Your task to perform on an android device: Open CNN.com Image 0: 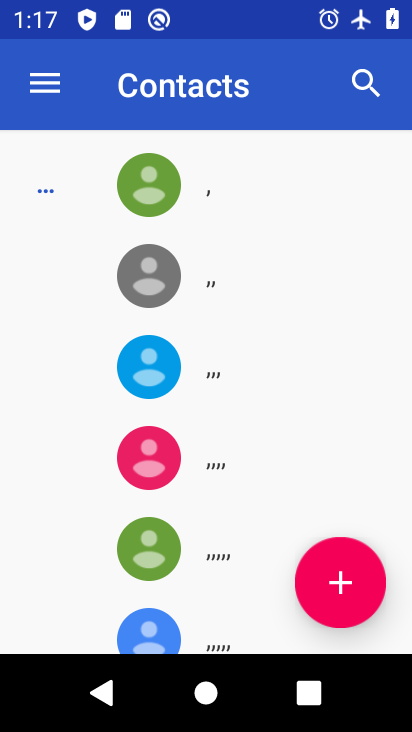
Step 0: press home button
Your task to perform on an android device: Open CNN.com Image 1: 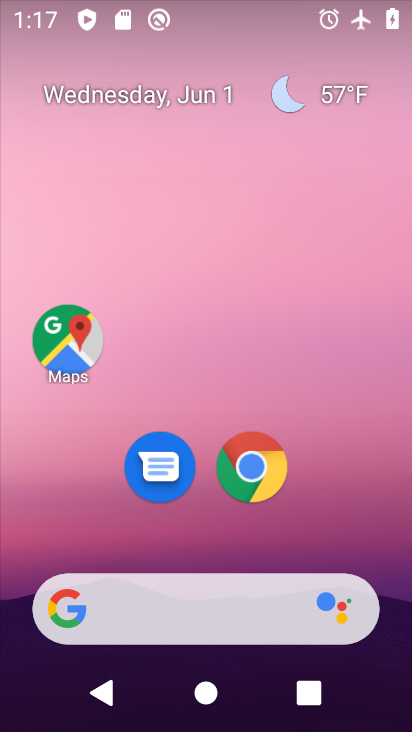
Step 1: drag from (386, 560) to (376, 115)
Your task to perform on an android device: Open CNN.com Image 2: 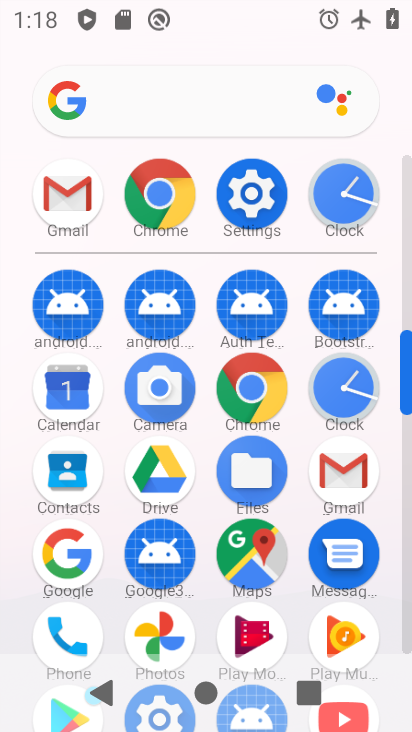
Step 2: click (257, 411)
Your task to perform on an android device: Open CNN.com Image 3: 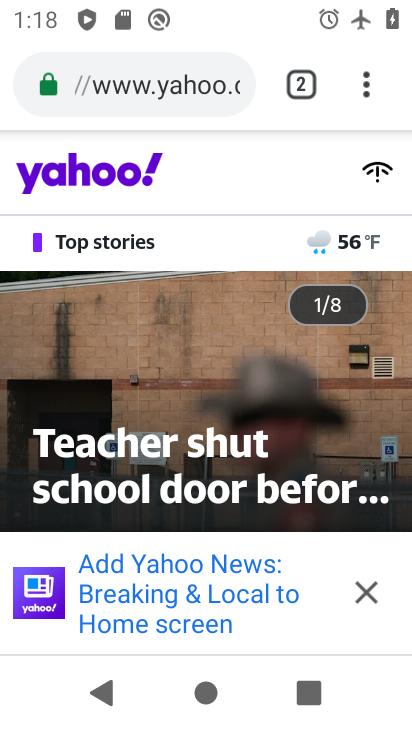
Step 3: click (155, 88)
Your task to perform on an android device: Open CNN.com Image 4: 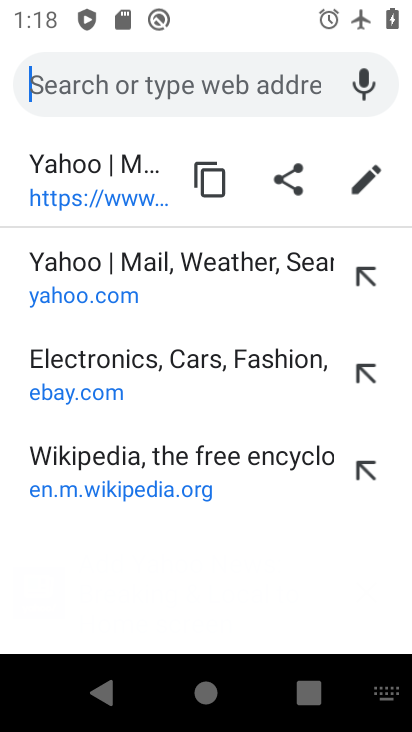
Step 4: click (213, 95)
Your task to perform on an android device: Open CNN.com Image 5: 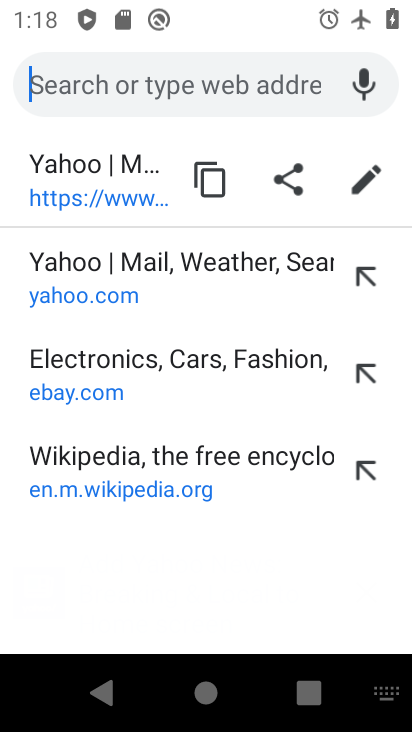
Step 5: type "cnn.com"
Your task to perform on an android device: Open CNN.com Image 6: 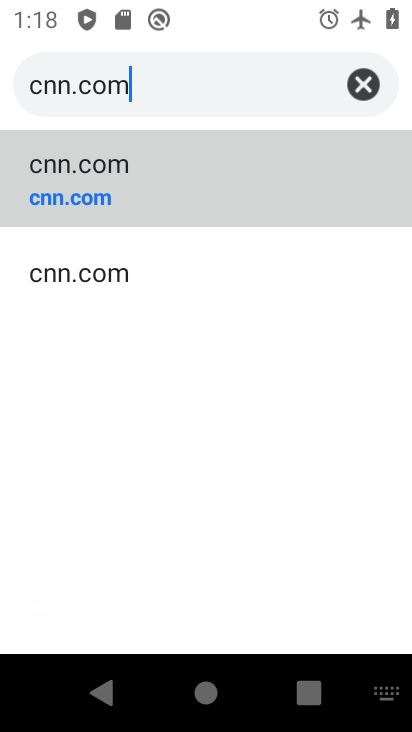
Step 6: click (166, 202)
Your task to perform on an android device: Open CNN.com Image 7: 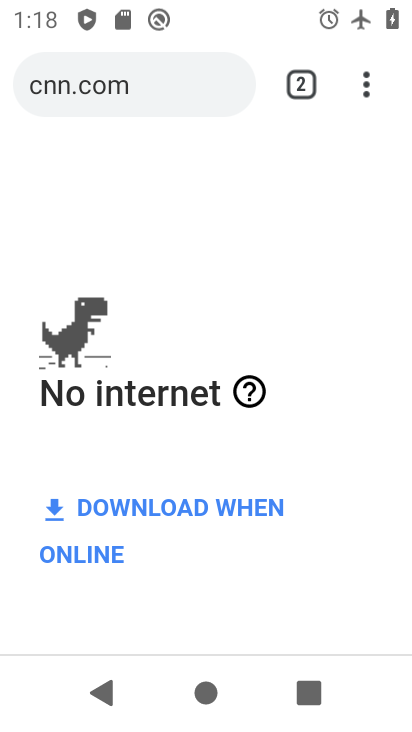
Step 7: task complete